Your task to perform on an android device: toggle notification dots Image 0: 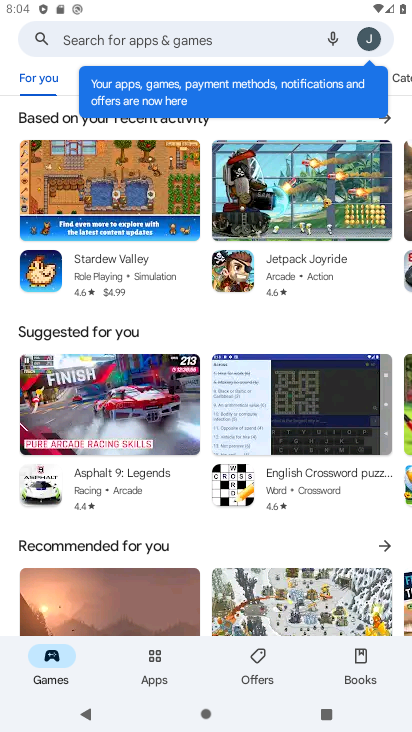
Step 0: press home button
Your task to perform on an android device: toggle notification dots Image 1: 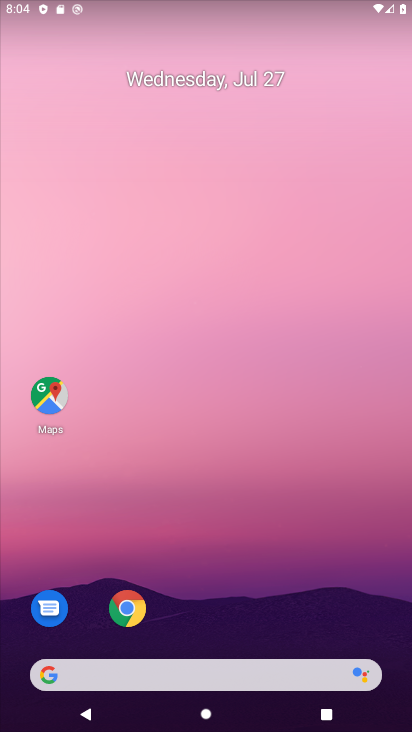
Step 1: drag from (289, 588) to (283, 211)
Your task to perform on an android device: toggle notification dots Image 2: 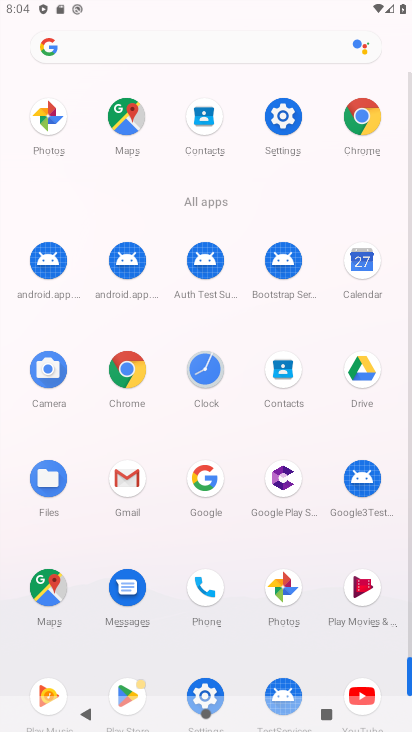
Step 2: click (290, 113)
Your task to perform on an android device: toggle notification dots Image 3: 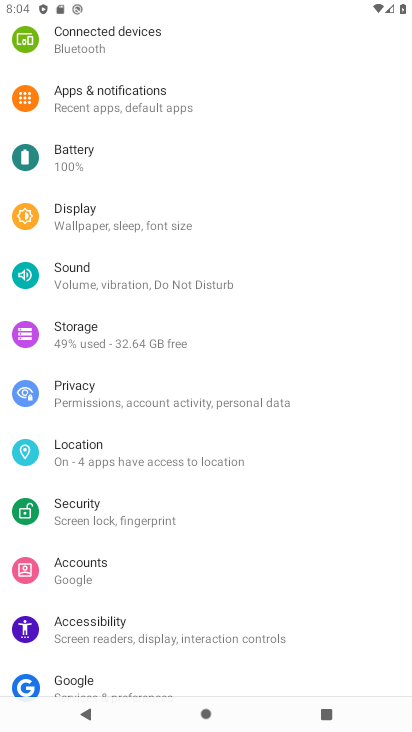
Step 3: task complete